Your task to perform on an android device: turn off priority inbox in the gmail app Image 0: 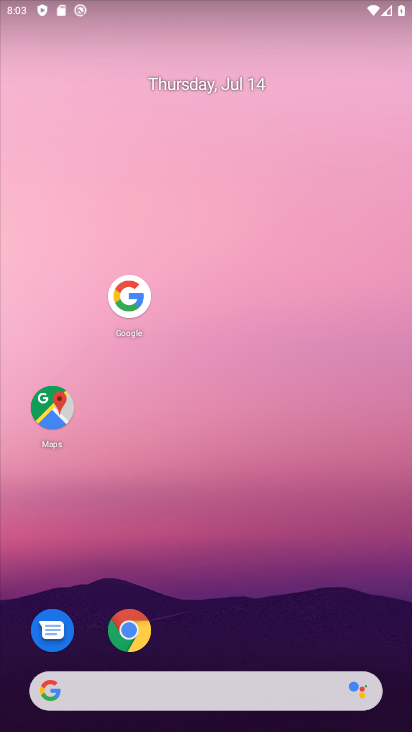
Step 0: drag from (238, 695) to (240, 99)
Your task to perform on an android device: turn off priority inbox in the gmail app Image 1: 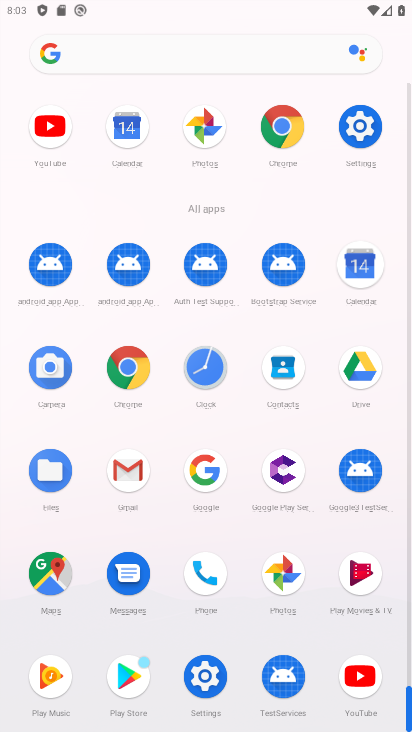
Step 1: click (136, 479)
Your task to perform on an android device: turn off priority inbox in the gmail app Image 2: 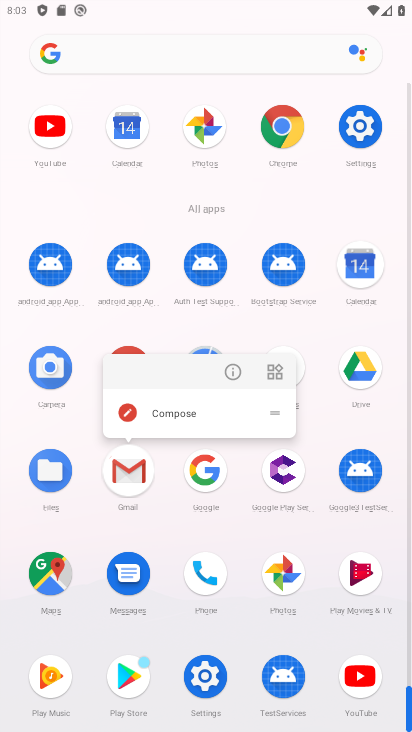
Step 2: click (137, 475)
Your task to perform on an android device: turn off priority inbox in the gmail app Image 3: 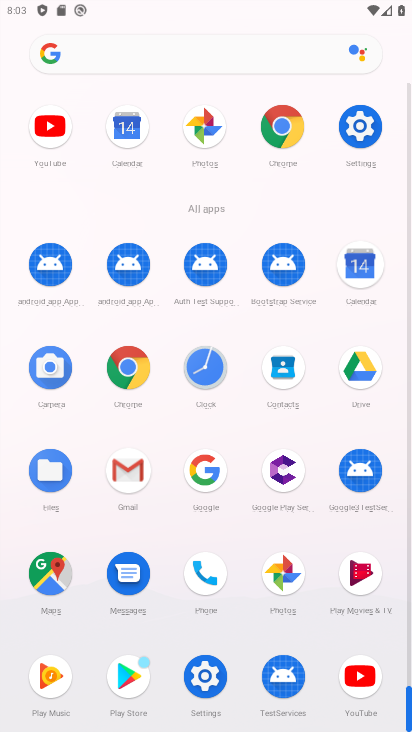
Step 3: click (139, 471)
Your task to perform on an android device: turn off priority inbox in the gmail app Image 4: 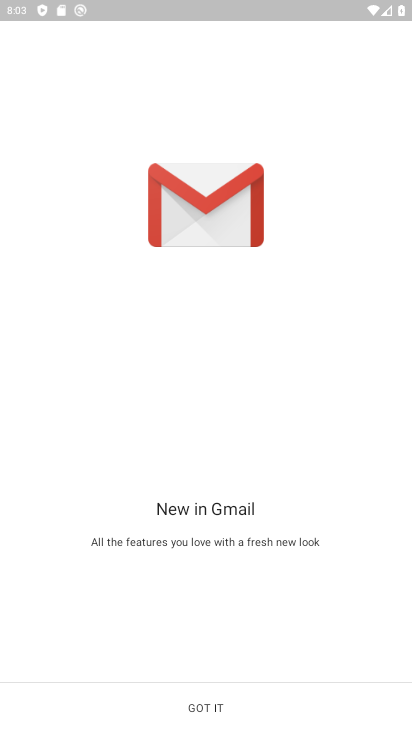
Step 4: click (208, 710)
Your task to perform on an android device: turn off priority inbox in the gmail app Image 5: 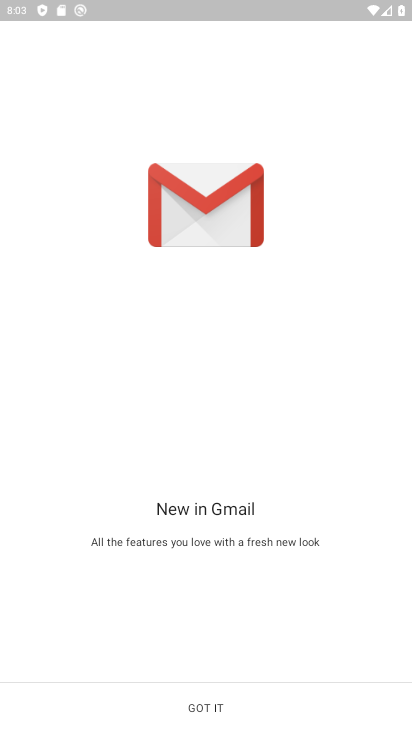
Step 5: click (208, 710)
Your task to perform on an android device: turn off priority inbox in the gmail app Image 6: 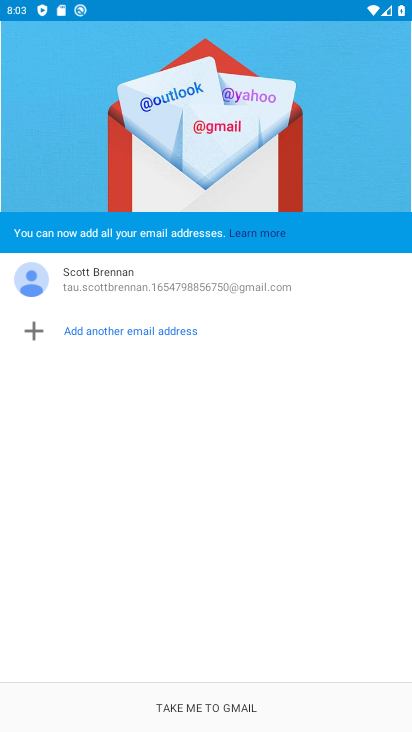
Step 6: click (201, 707)
Your task to perform on an android device: turn off priority inbox in the gmail app Image 7: 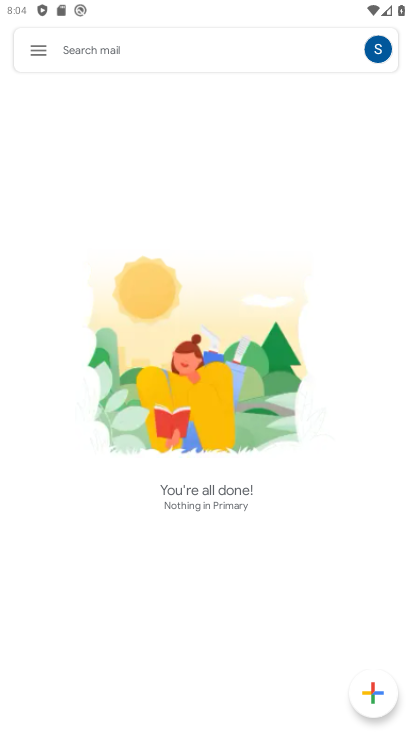
Step 7: click (35, 48)
Your task to perform on an android device: turn off priority inbox in the gmail app Image 8: 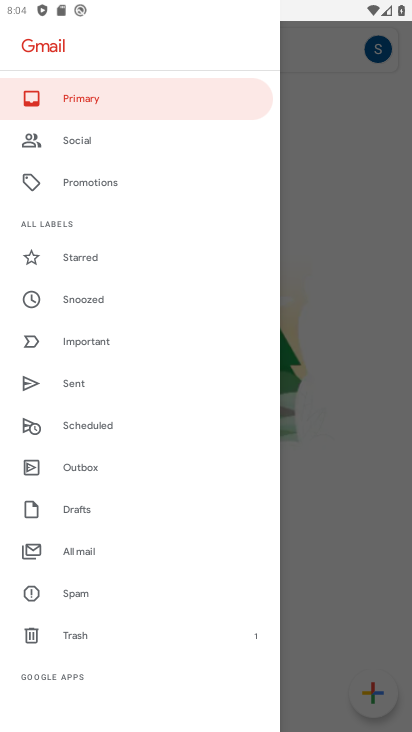
Step 8: drag from (75, 617) to (107, 196)
Your task to perform on an android device: turn off priority inbox in the gmail app Image 9: 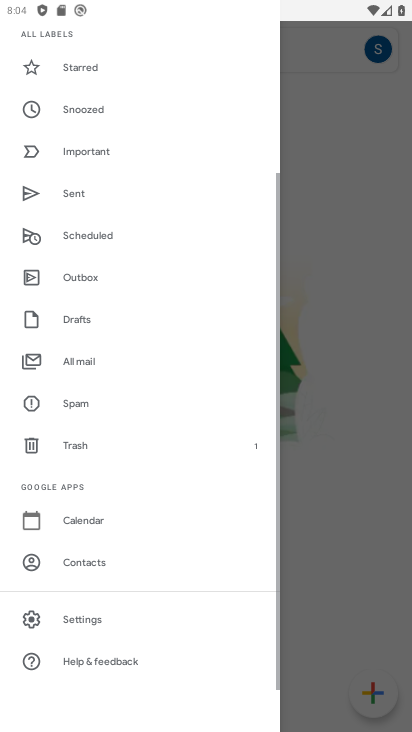
Step 9: drag from (105, 432) to (111, 119)
Your task to perform on an android device: turn off priority inbox in the gmail app Image 10: 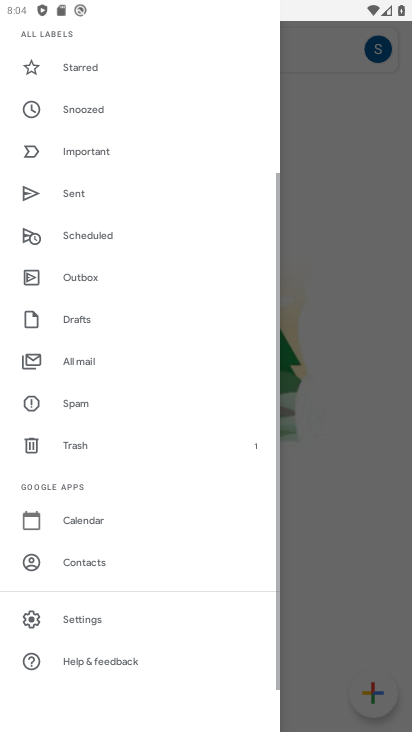
Step 10: click (82, 615)
Your task to perform on an android device: turn off priority inbox in the gmail app Image 11: 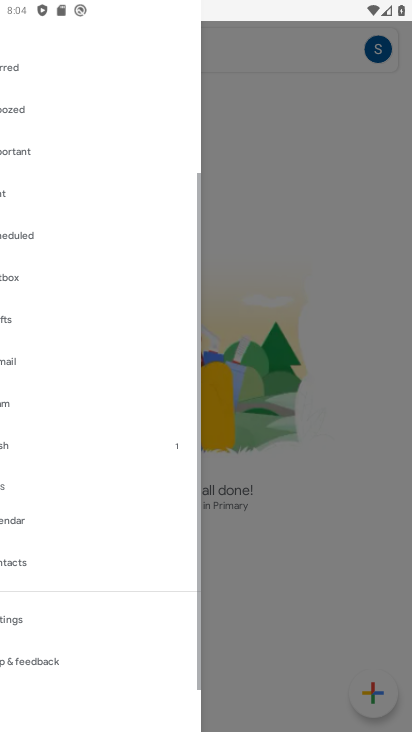
Step 11: click (82, 615)
Your task to perform on an android device: turn off priority inbox in the gmail app Image 12: 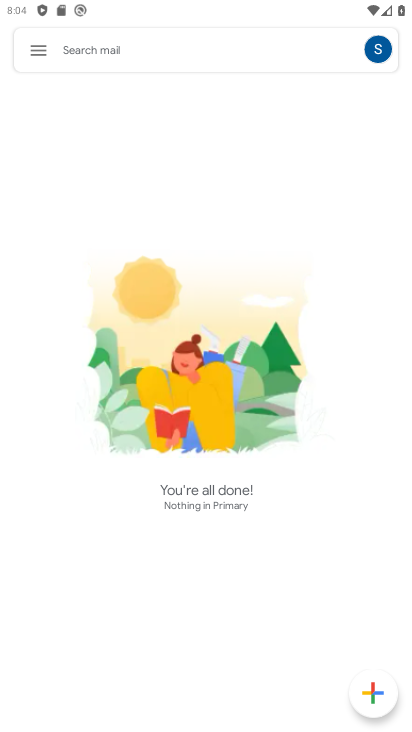
Step 12: click (82, 611)
Your task to perform on an android device: turn off priority inbox in the gmail app Image 13: 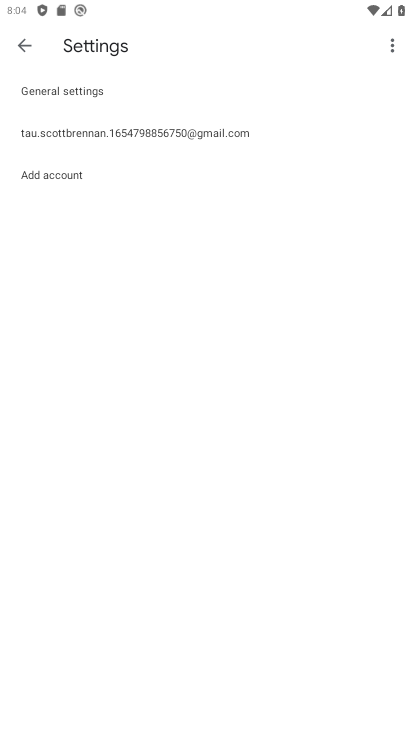
Step 13: click (69, 135)
Your task to perform on an android device: turn off priority inbox in the gmail app Image 14: 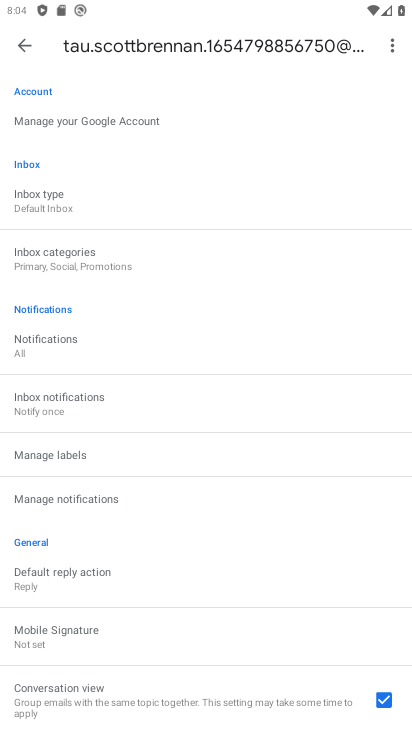
Step 14: click (60, 163)
Your task to perform on an android device: turn off priority inbox in the gmail app Image 15: 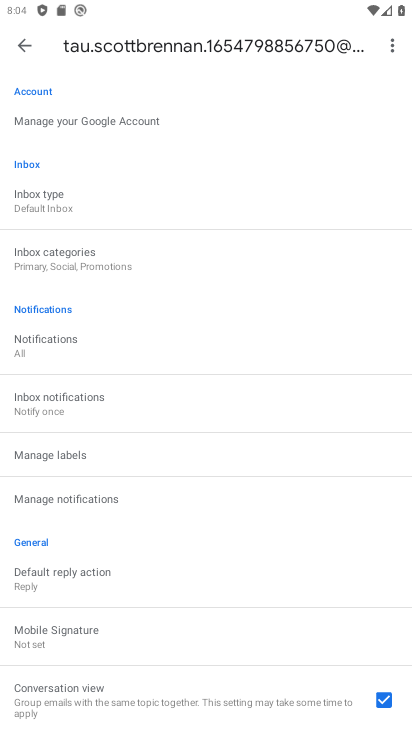
Step 15: click (37, 207)
Your task to perform on an android device: turn off priority inbox in the gmail app Image 16: 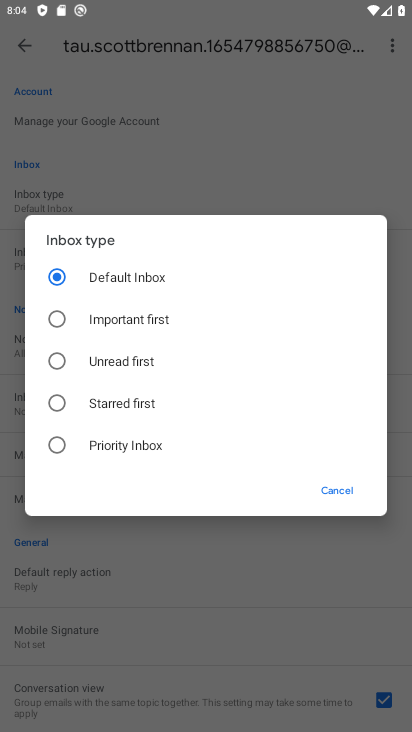
Step 16: click (54, 448)
Your task to perform on an android device: turn off priority inbox in the gmail app Image 17: 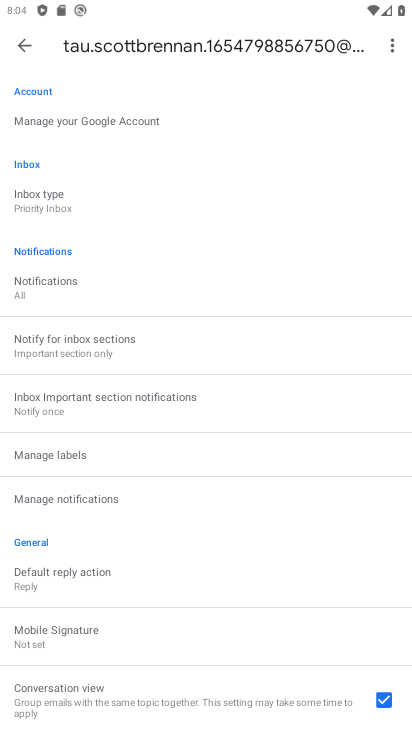
Step 17: task complete